Your task to perform on an android device: open a new tab in the chrome app Image 0: 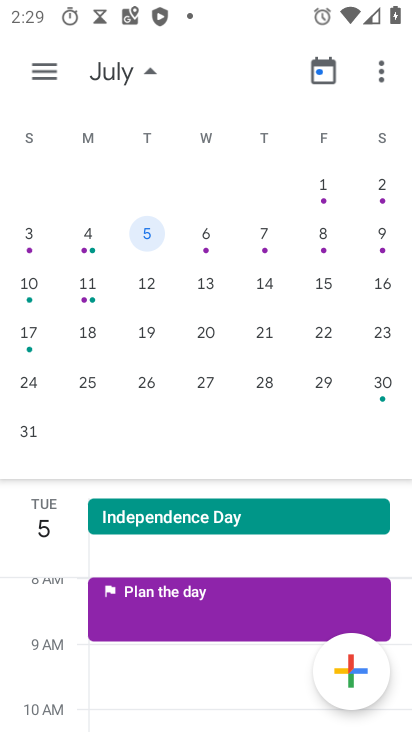
Step 0: press home button
Your task to perform on an android device: open a new tab in the chrome app Image 1: 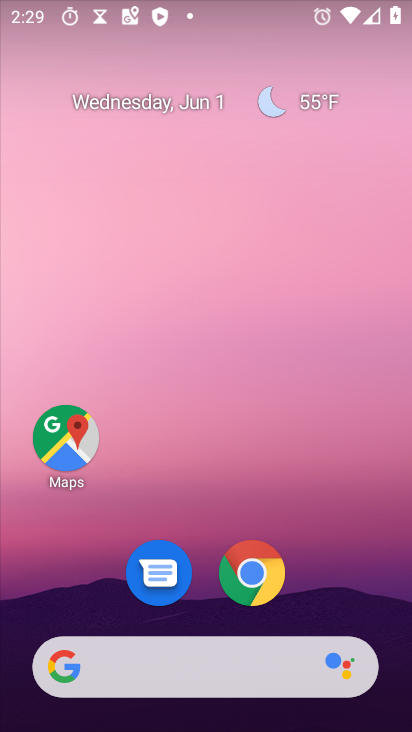
Step 1: drag from (336, 435) to (406, 63)
Your task to perform on an android device: open a new tab in the chrome app Image 2: 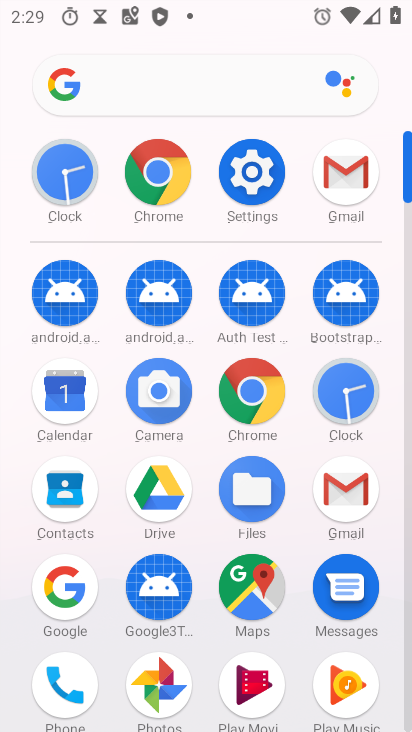
Step 2: click (167, 175)
Your task to perform on an android device: open a new tab in the chrome app Image 3: 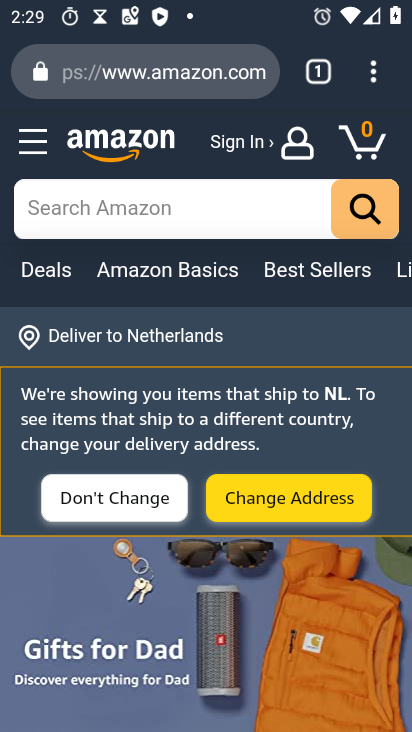
Step 3: task complete